Your task to perform on an android device: Check the news Image 0: 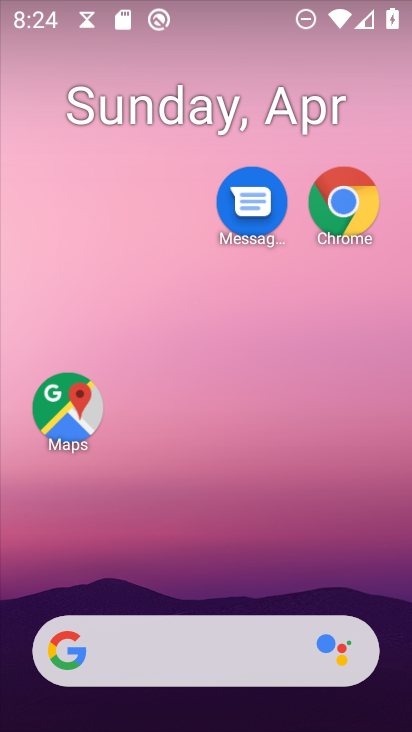
Step 0: drag from (34, 299) to (400, 659)
Your task to perform on an android device: Check the news Image 1: 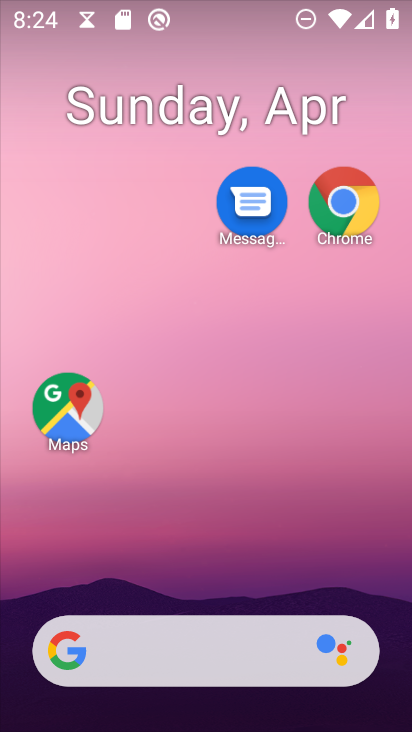
Step 1: task complete